Your task to perform on an android device: turn on the 24-hour format for clock Image 0: 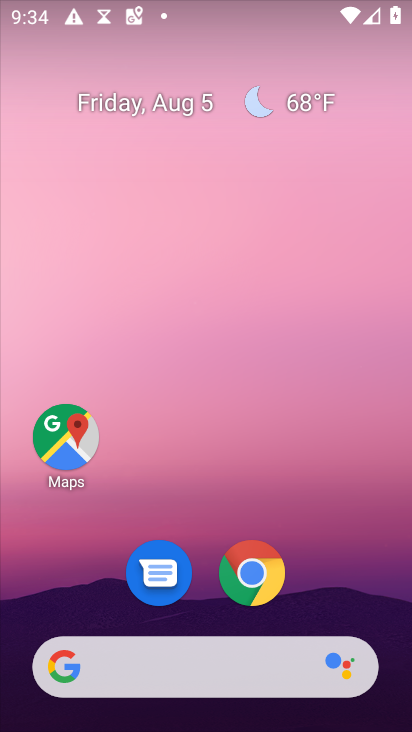
Step 0: drag from (180, 673) to (295, 80)
Your task to perform on an android device: turn on the 24-hour format for clock Image 1: 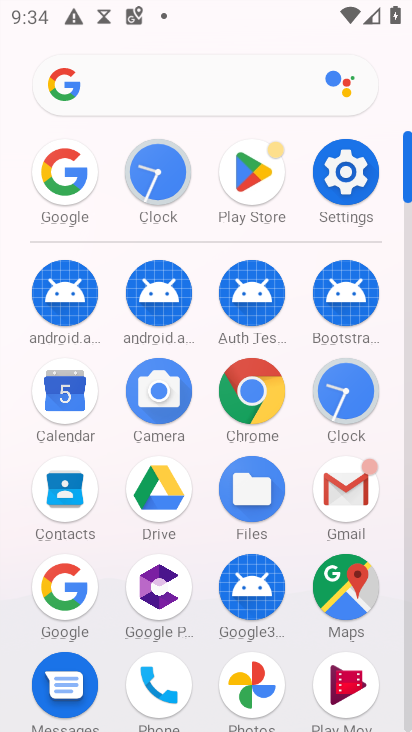
Step 1: click (158, 172)
Your task to perform on an android device: turn on the 24-hour format for clock Image 2: 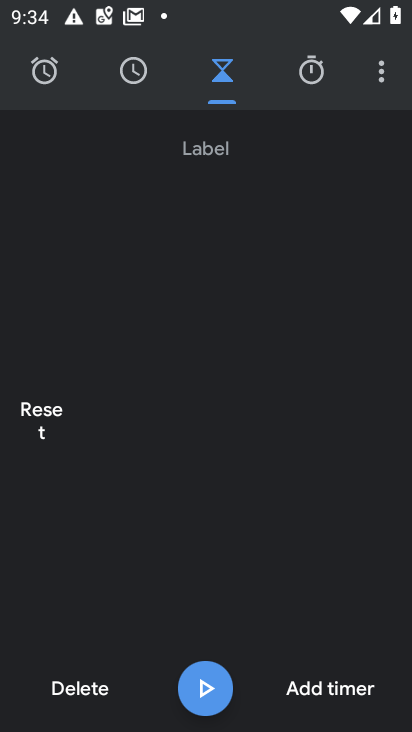
Step 2: click (384, 73)
Your task to perform on an android device: turn on the 24-hour format for clock Image 3: 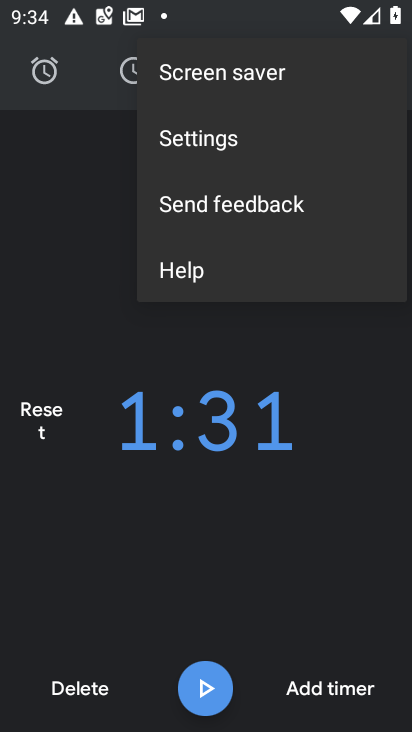
Step 3: click (224, 145)
Your task to perform on an android device: turn on the 24-hour format for clock Image 4: 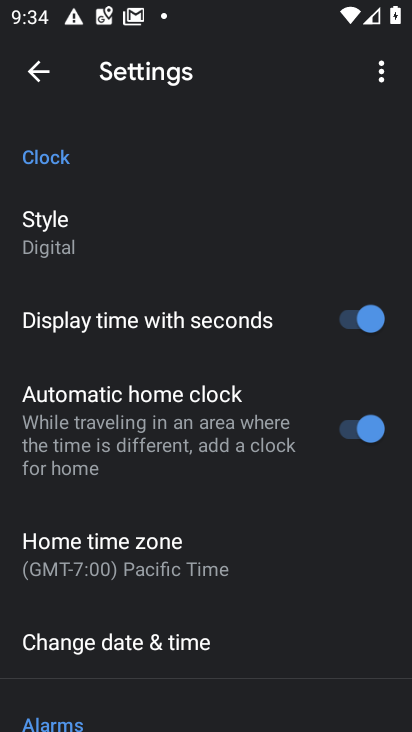
Step 4: click (152, 642)
Your task to perform on an android device: turn on the 24-hour format for clock Image 5: 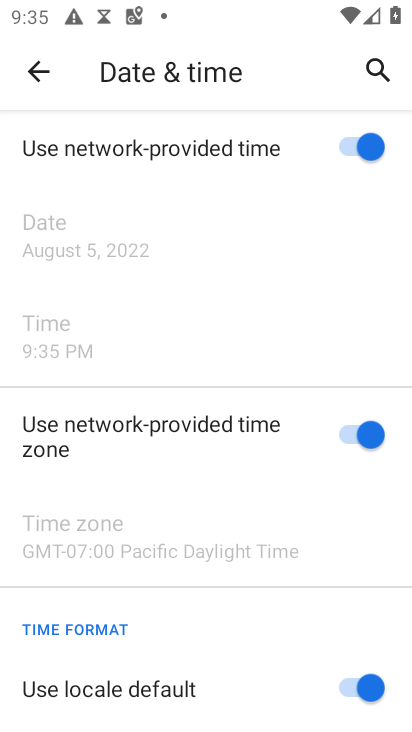
Step 5: drag from (182, 646) to (252, 403)
Your task to perform on an android device: turn on the 24-hour format for clock Image 6: 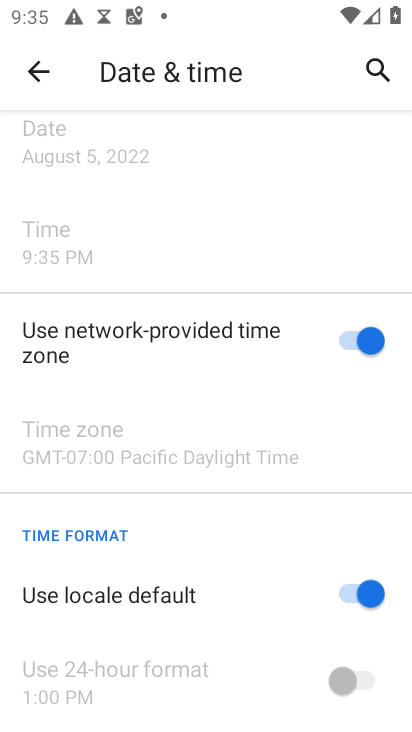
Step 6: click (346, 601)
Your task to perform on an android device: turn on the 24-hour format for clock Image 7: 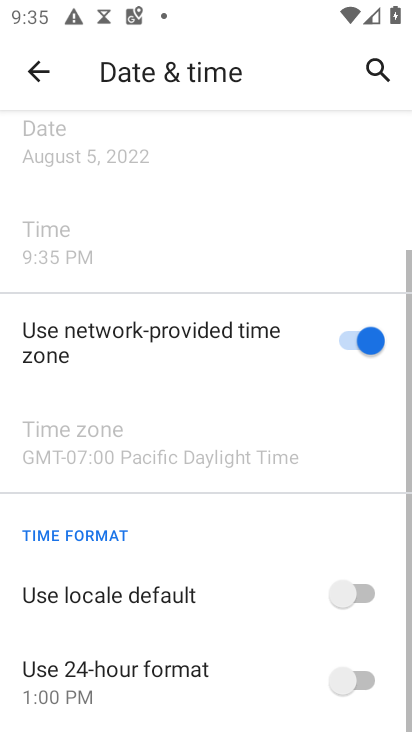
Step 7: click (356, 689)
Your task to perform on an android device: turn on the 24-hour format for clock Image 8: 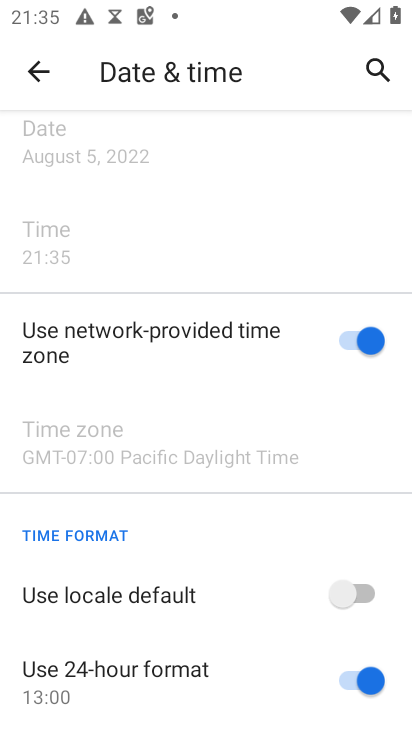
Step 8: task complete